Your task to perform on an android device: toggle wifi Image 0: 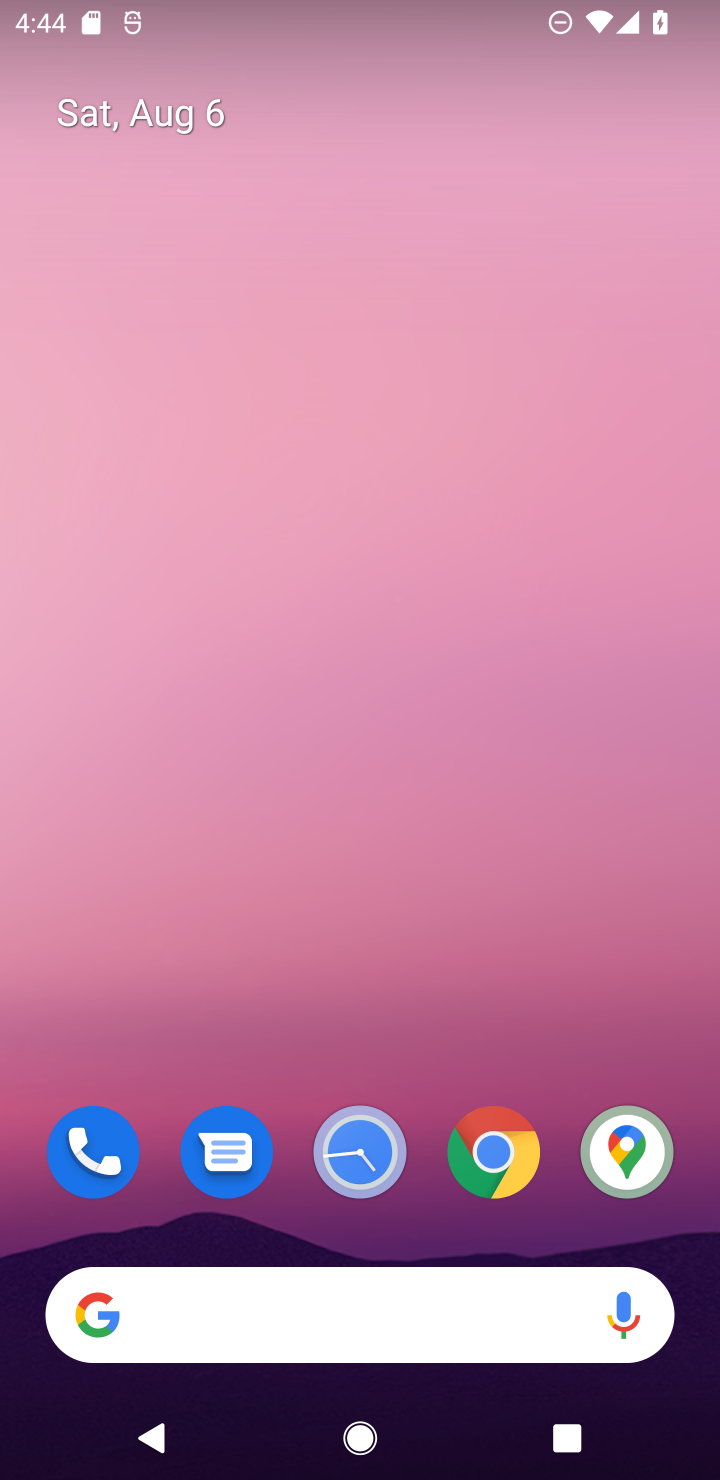
Step 0: press home button
Your task to perform on an android device: toggle wifi Image 1: 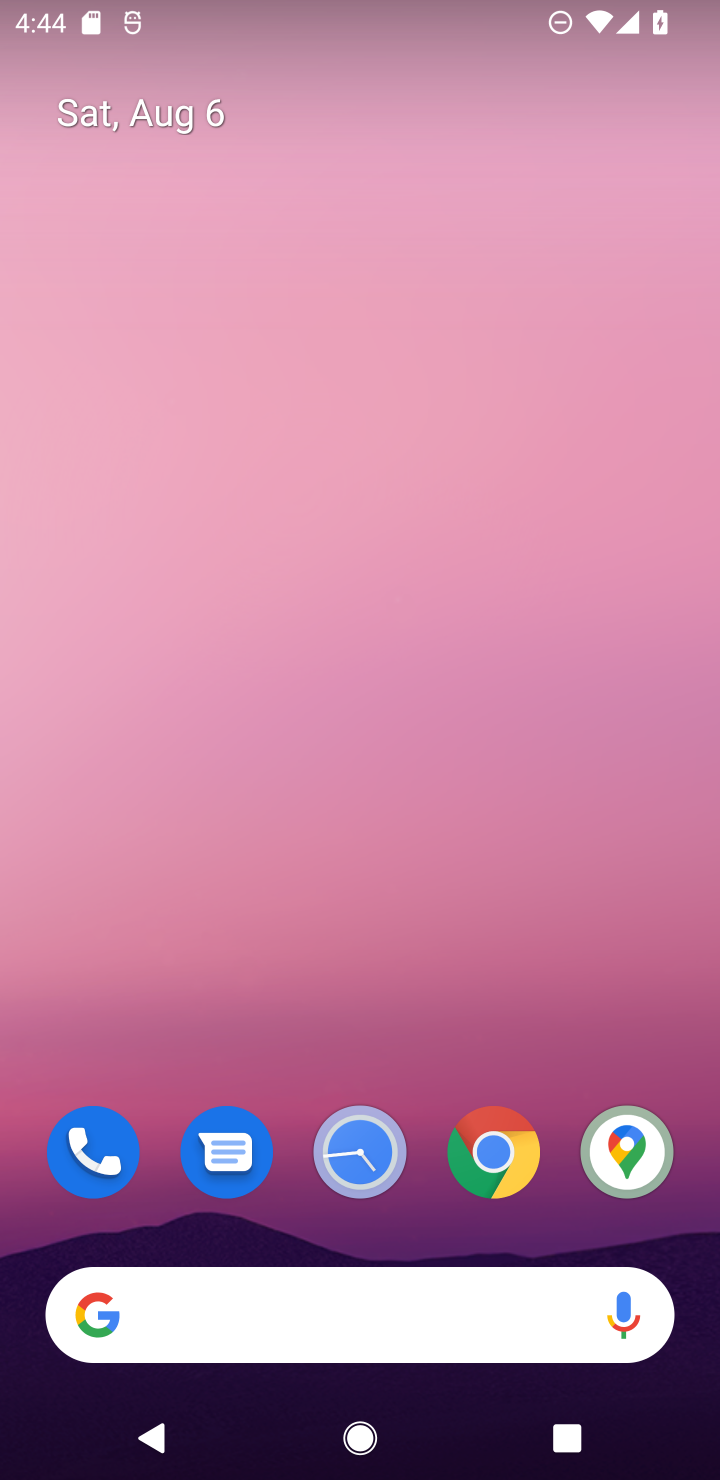
Step 1: press home button
Your task to perform on an android device: toggle wifi Image 2: 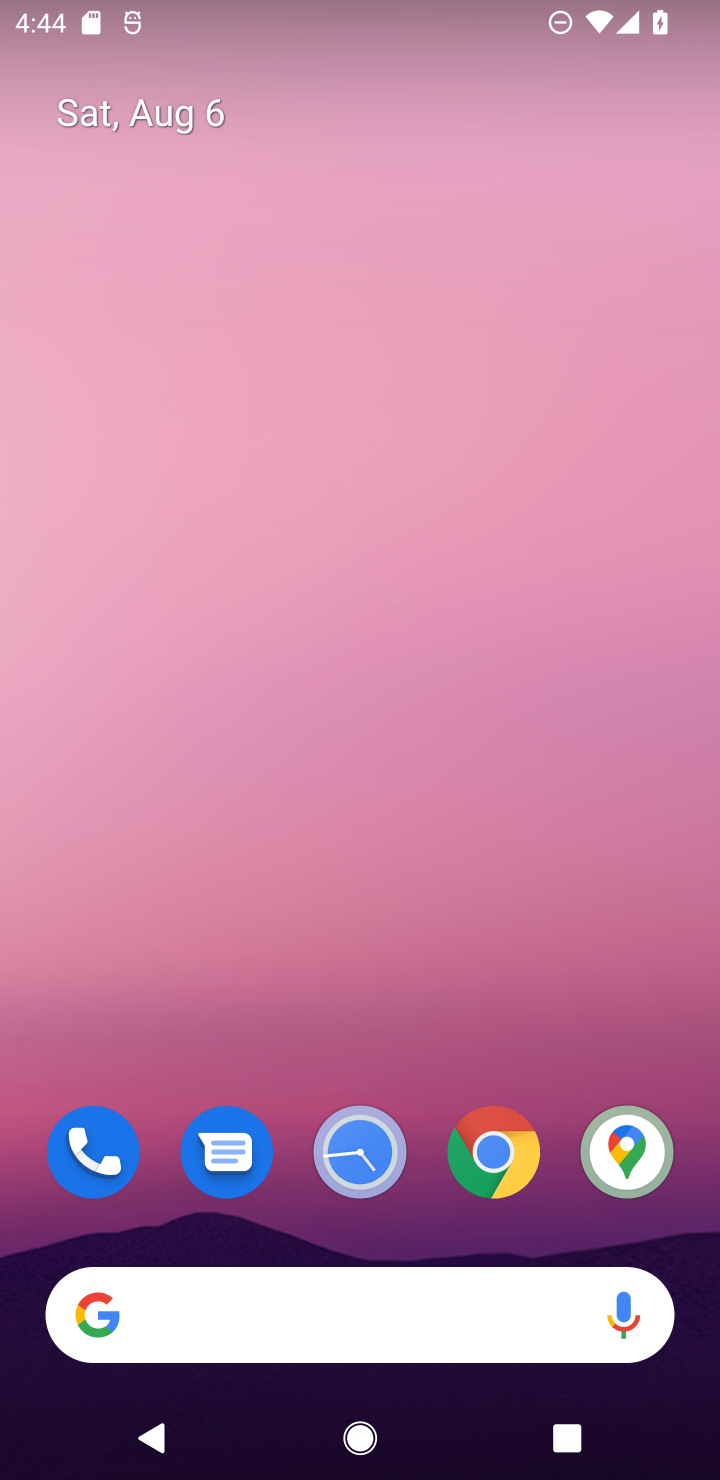
Step 2: drag from (430, 1218) to (451, 92)
Your task to perform on an android device: toggle wifi Image 3: 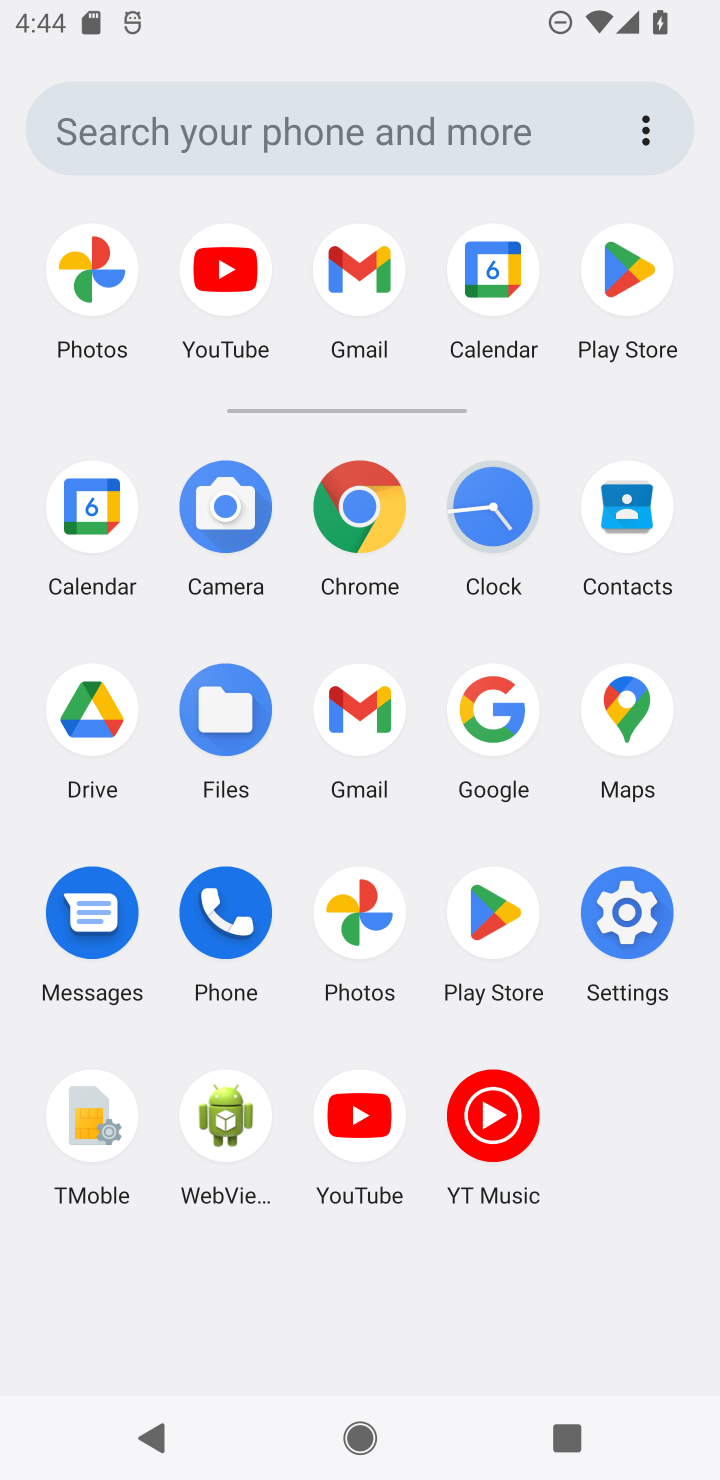
Step 3: click (638, 921)
Your task to perform on an android device: toggle wifi Image 4: 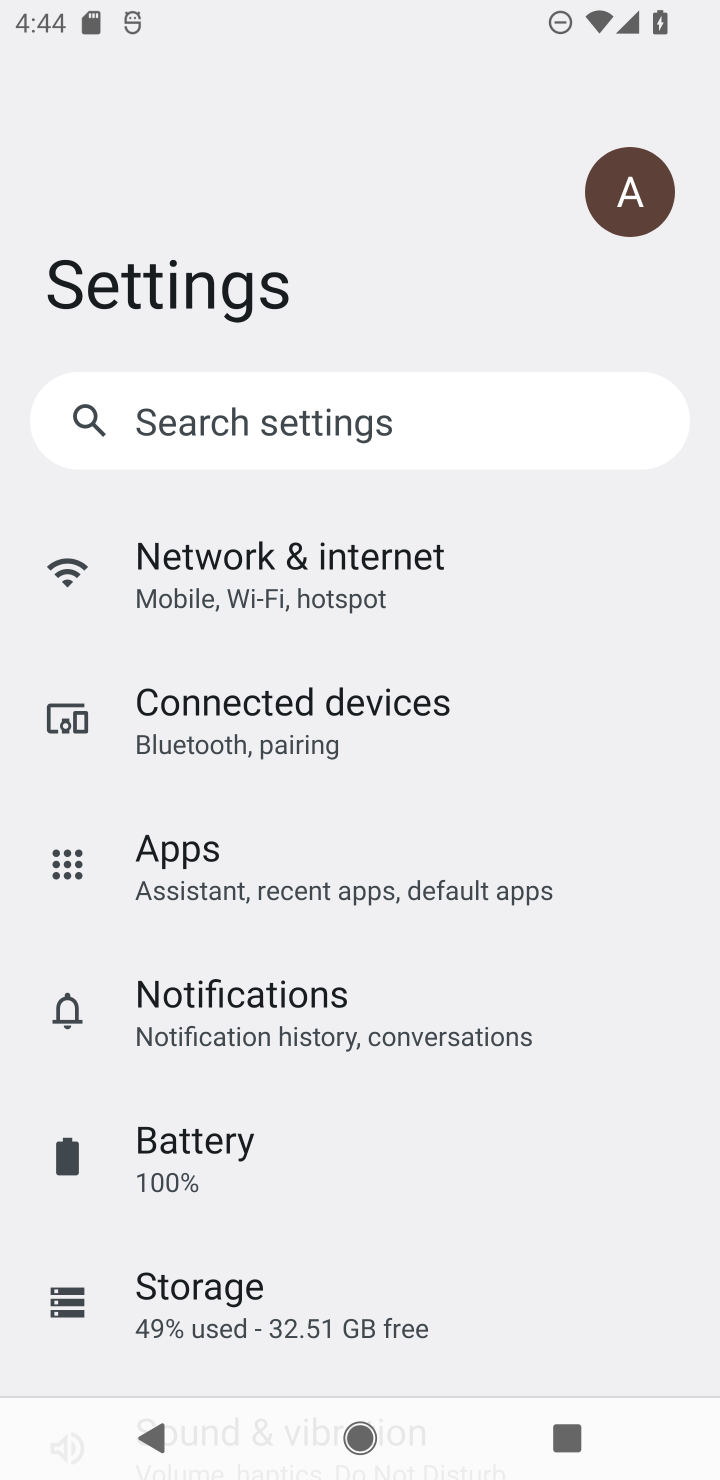
Step 4: click (332, 538)
Your task to perform on an android device: toggle wifi Image 5: 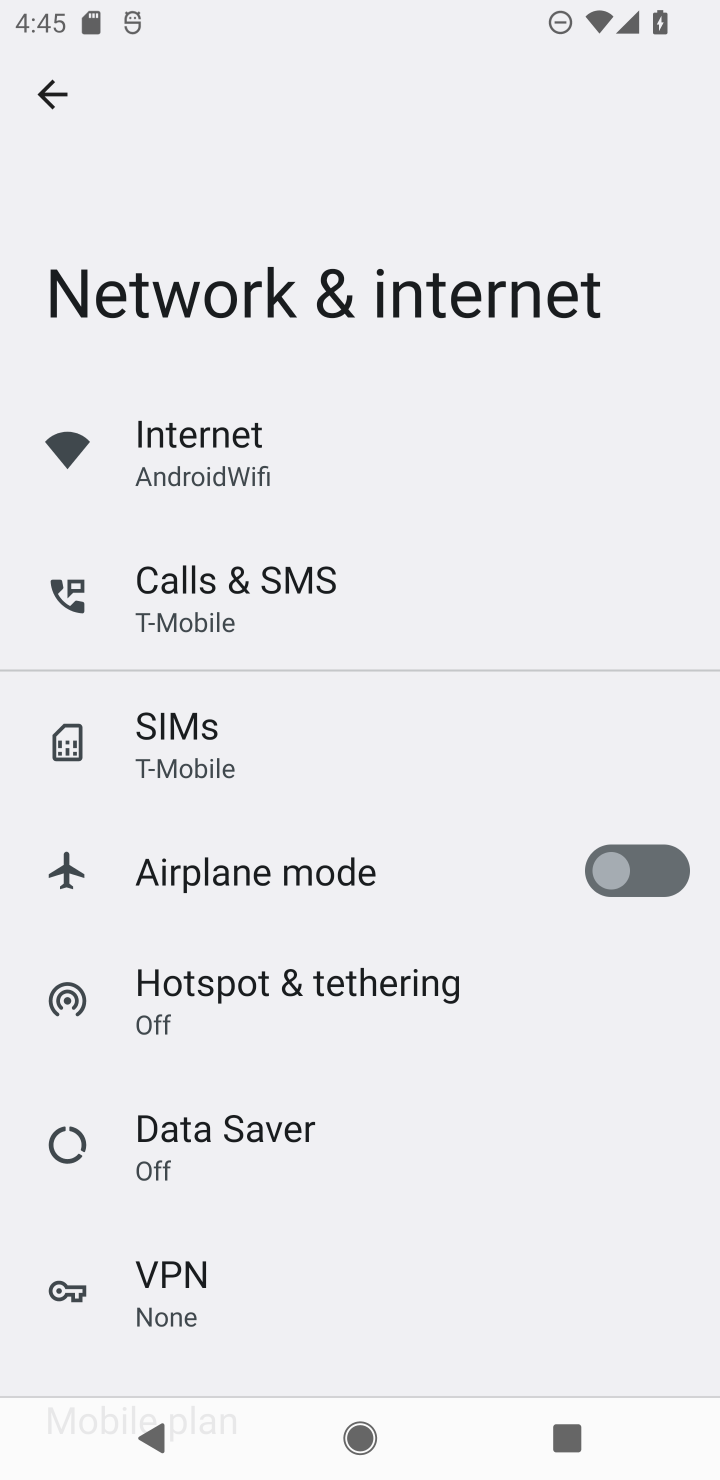
Step 5: click (213, 469)
Your task to perform on an android device: toggle wifi Image 6: 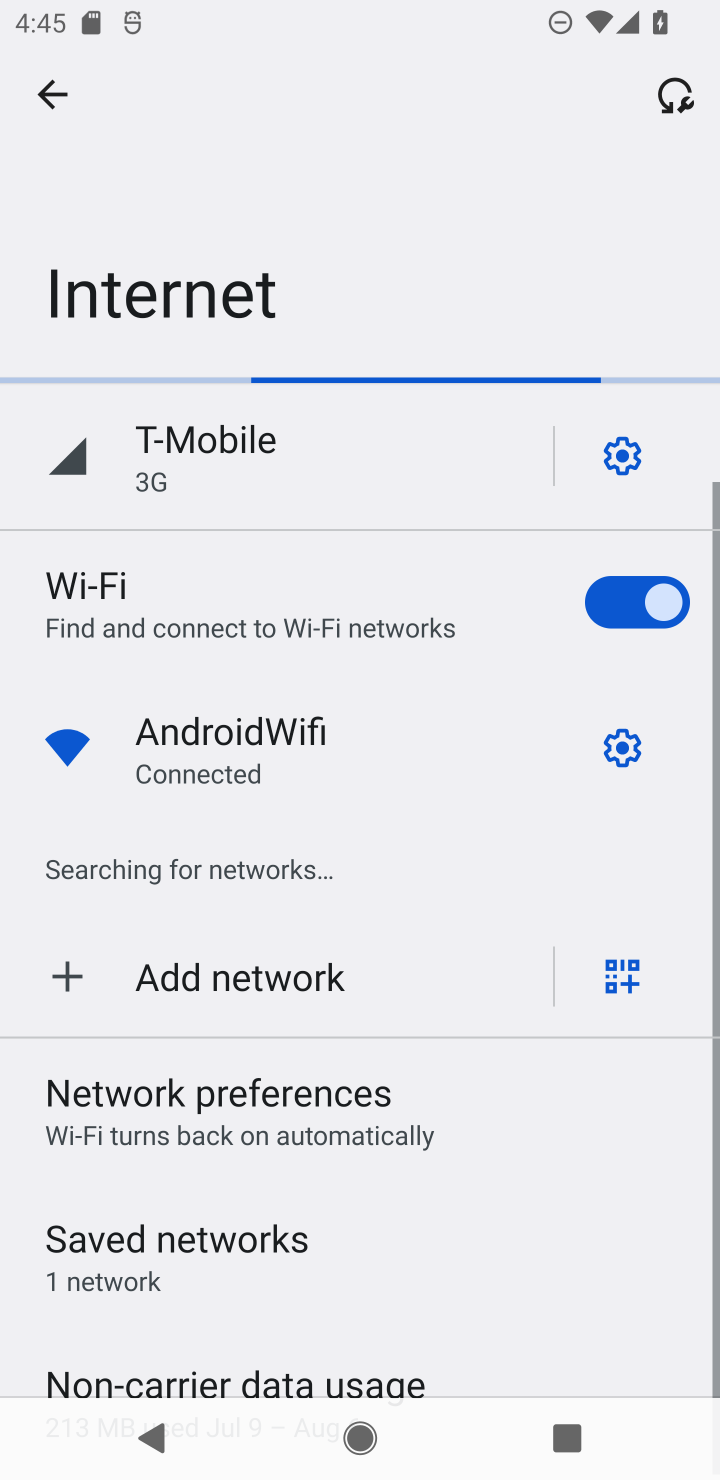
Step 6: click (640, 581)
Your task to perform on an android device: toggle wifi Image 7: 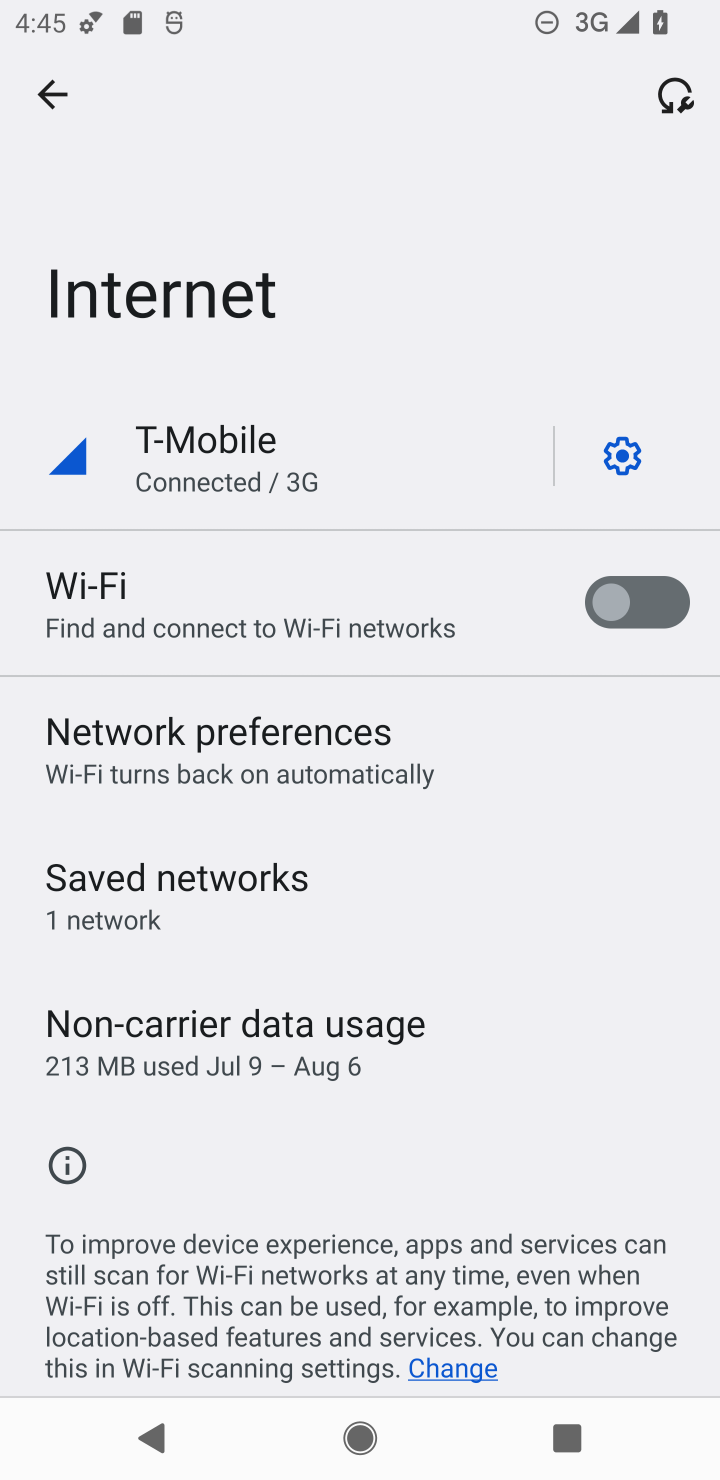
Step 7: task complete